Your task to perform on an android device: What's on my calendar tomorrow? Image 0: 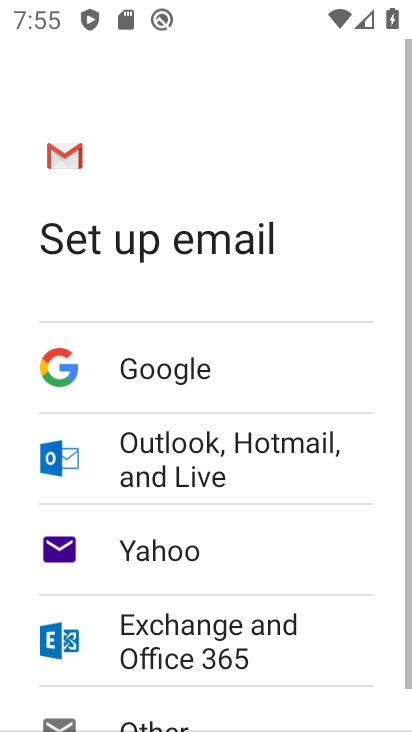
Step 0: press home button
Your task to perform on an android device: What's on my calendar tomorrow? Image 1: 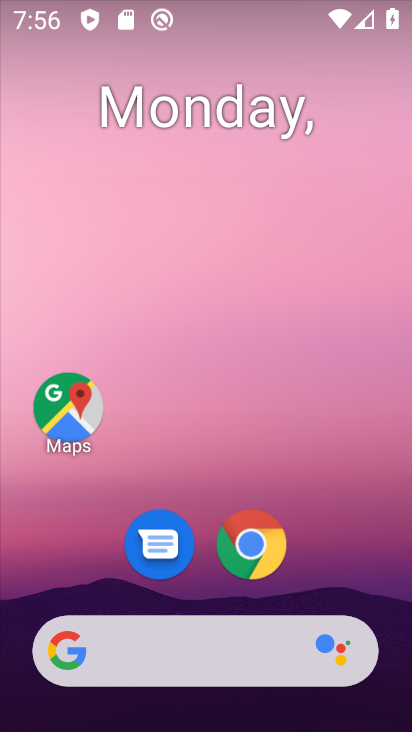
Step 1: click (138, 637)
Your task to perform on an android device: What's on my calendar tomorrow? Image 2: 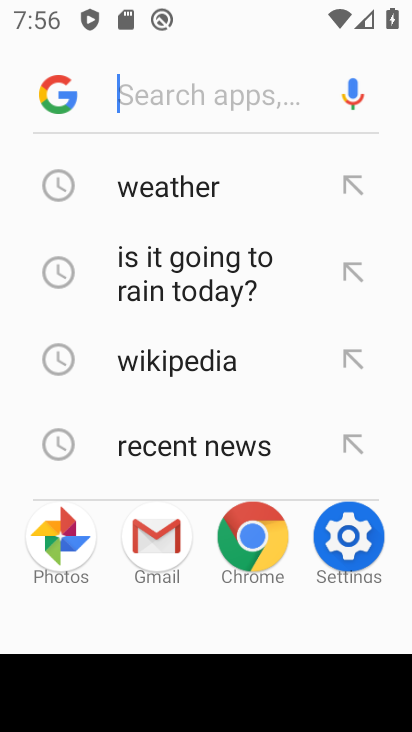
Step 2: click (160, 203)
Your task to perform on an android device: What's on my calendar tomorrow? Image 3: 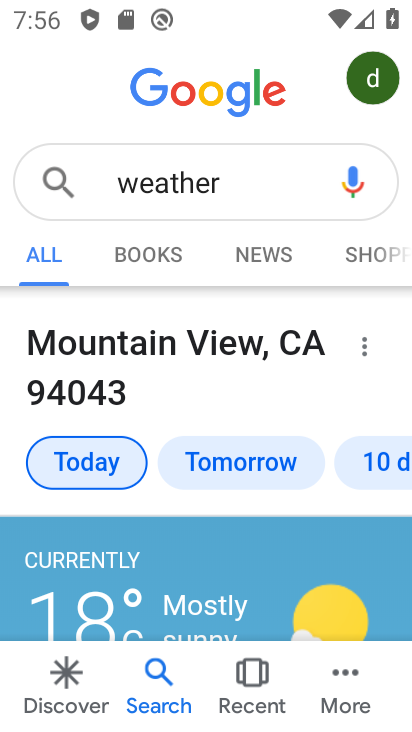
Step 3: drag from (208, 489) to (143, 489)
Your task to perform on an android device: What's on my calendar tomorrow? Image 4: 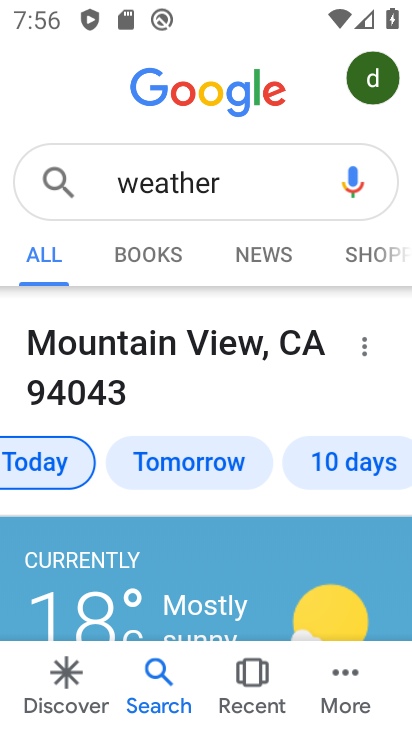
Step 4: click (152, 482)
Your task to perform on an android device: What's on my calendar tomorrow? Image 5: 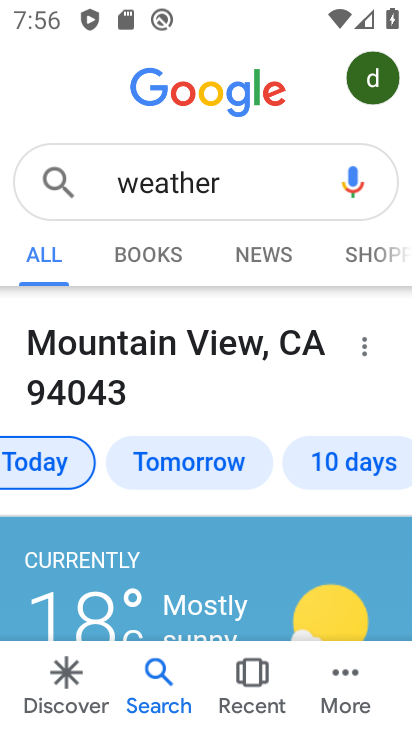
Step 5: click (146, 479)
Your task to perform on an android device: What's on my calendar tomorrow? Image 6: 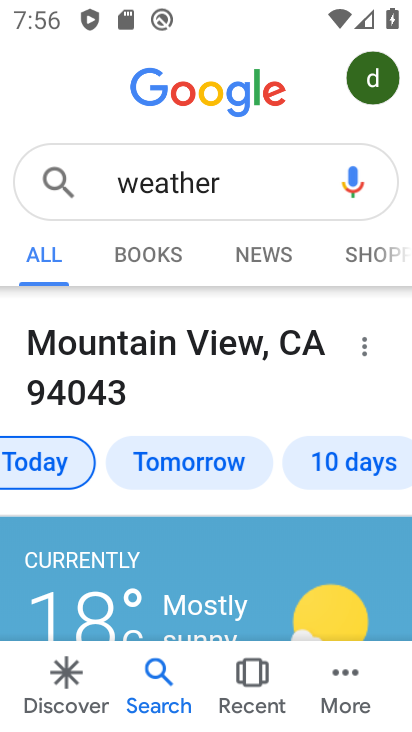
Step 6: task complete